Your task to perform on an android device: change the clock display to digital Image 0: 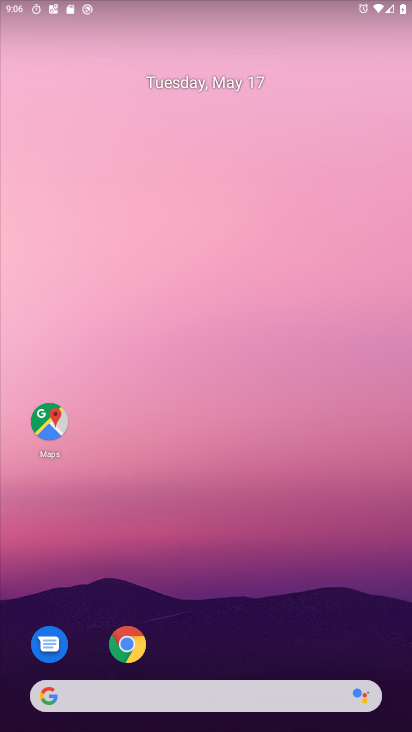
Step 0: press home button
Your task to perform on an android device: change the clock display to digital Image 1: 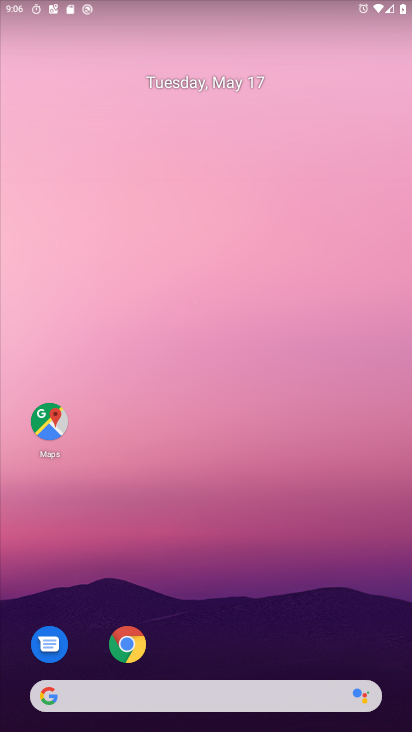
Step 1: drag from (212, 667) to (253, 39)
Your task to perform on an android device: change the clock display to digital Image 2: 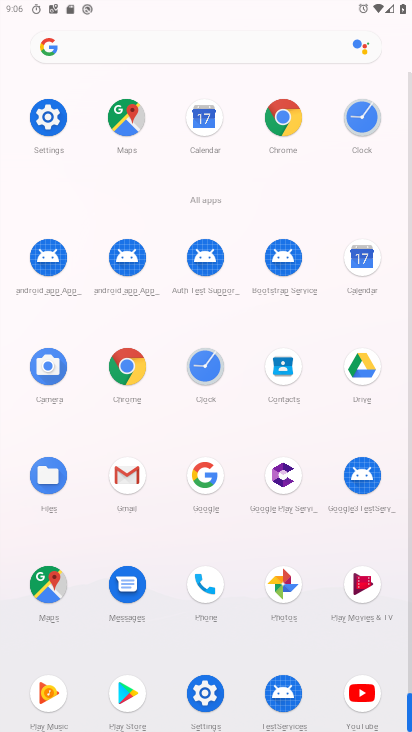
Step 2: click (204, 359)
Your task to perform on an android device: change the clock display to digital Image 3: 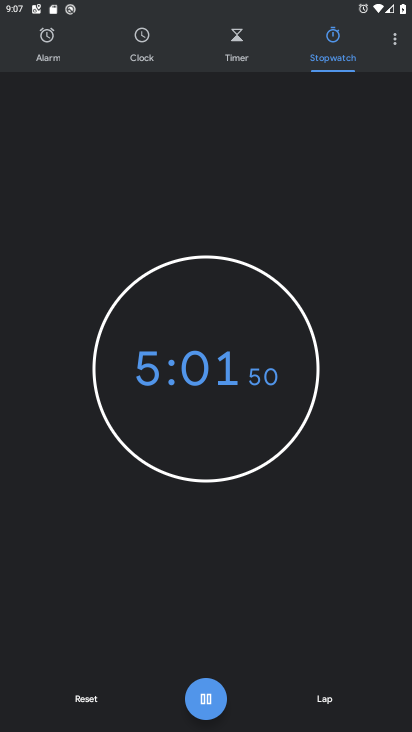
Step 3: click (85, 702)
Your task to perform on an android device: change the clock display to digital Image 4: 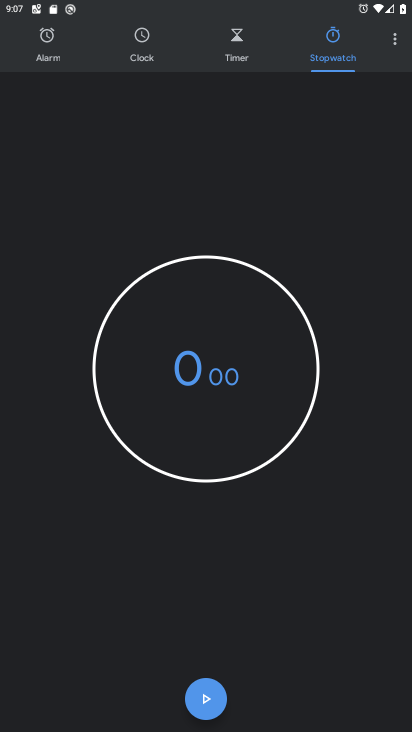
Step 4: click (396, 37)
Your task to perform on an android device: change the clock display to digital Image 5: 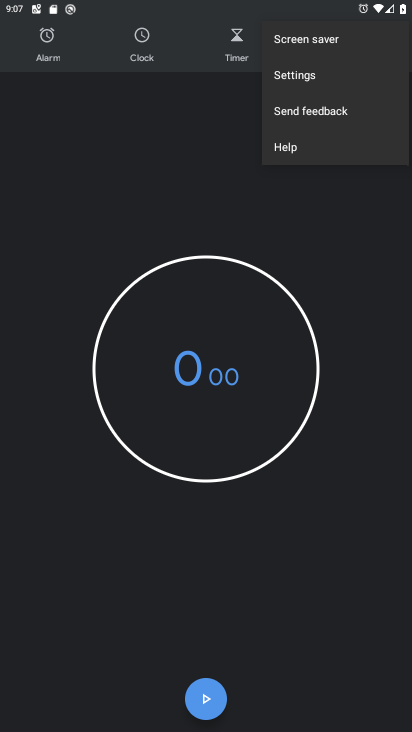
Step 5: click (318, 76)
Your task to perform on an android device: change the clock display to digital Image 6: 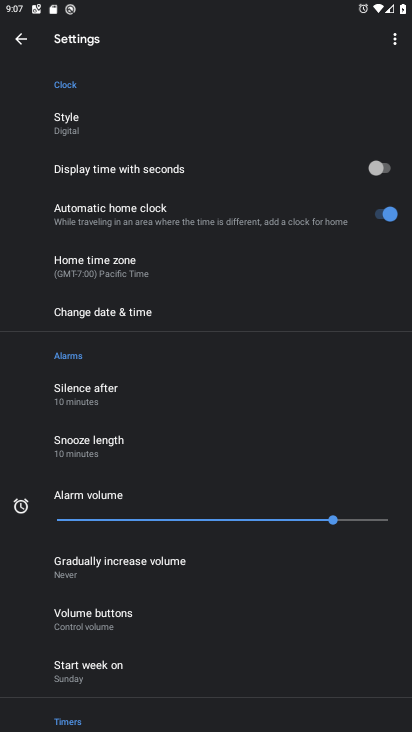
Step 6: click (85, 126)
Your task to perform on an android device: change the clock display to digital Image 7: 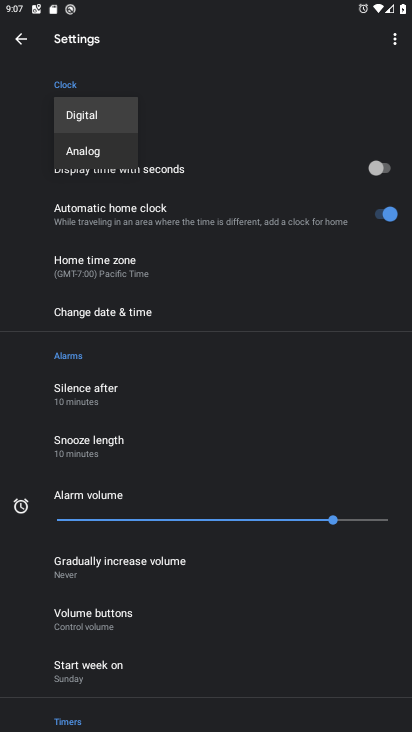
Step 7: click (100, 113)
Your task to perform on an android device: change the clock display to digital Image 8: 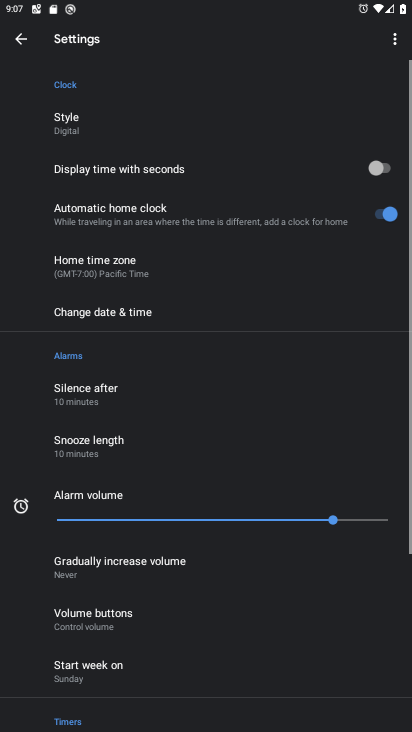
Step 8: task complete